Your task to perform on an android device: turn off picture-in-picture Image 0: 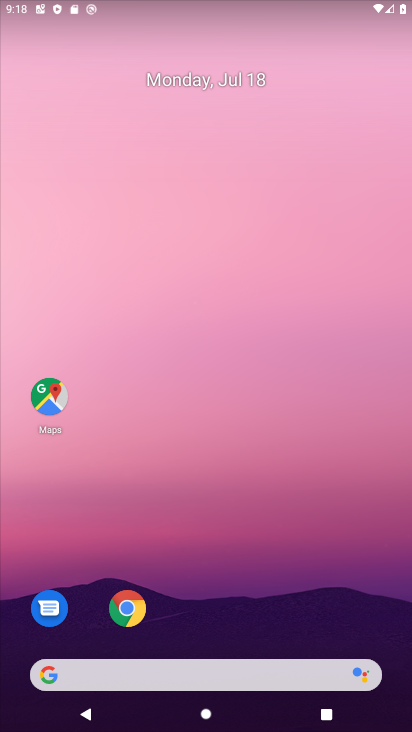
Step 0: click (131, 609)
Your task to perform on an android device: turn off picture-in-picture Image 1: 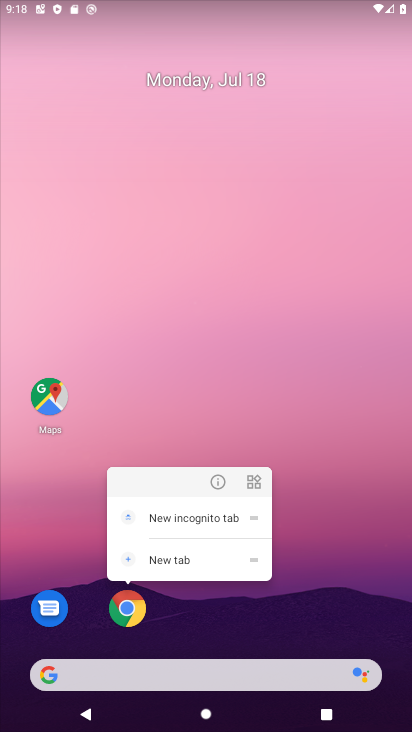
Step 1: click (211, 475)
Your task to perform on an android device: turn off picture-in-picture Image 2: 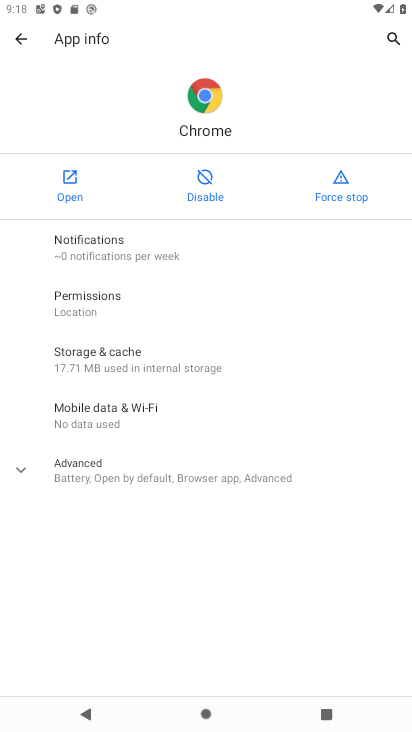
Step 2: click (99, 485)
Your task to perform on an android device: turn off picture-in-picture Image 3: 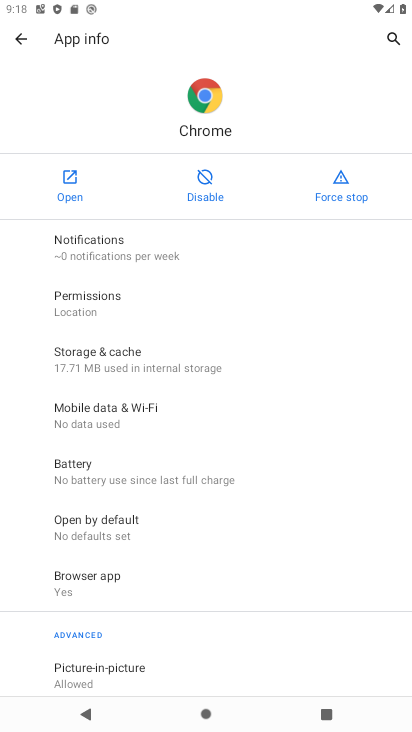
Step 3: click (91, 664)
Your task to perform on an android device: turn off picture-in-picture Image 4: 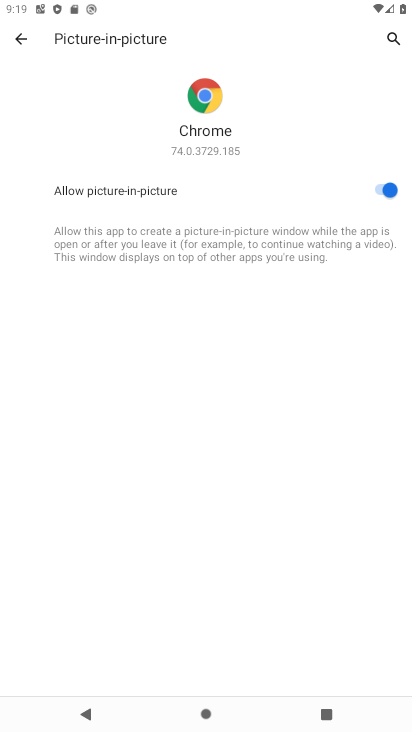
Step 4: click (360, 189)
Your task to perform on an android device: turn off picture-in-picture Image 5: 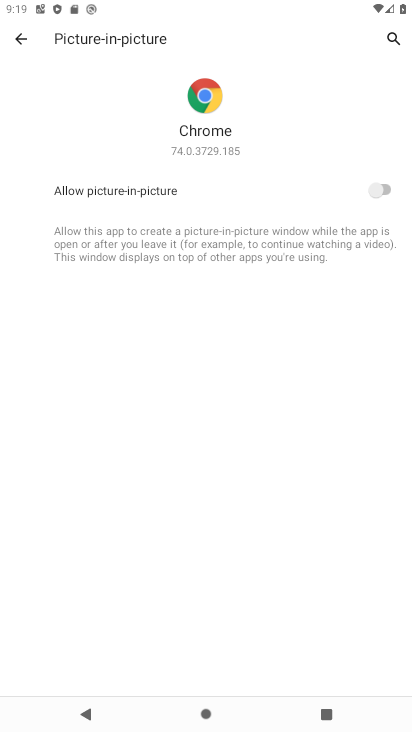
Step 5: task complete